Your task to perform on an android device: Open calendar and show me the third week of next month Image 0: 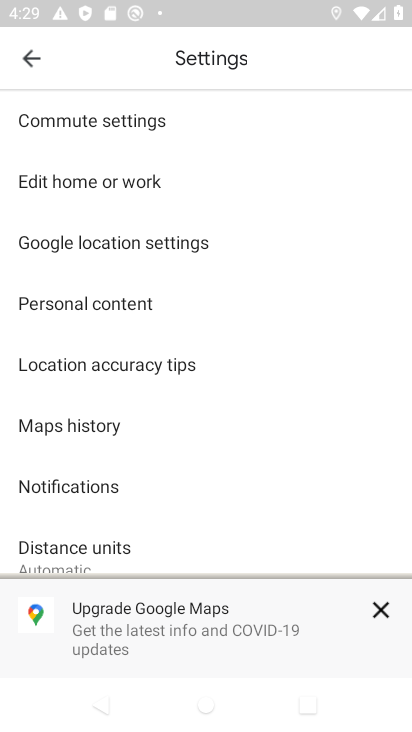
Step 0: press back button
Your task to perform on an android device: Open calendar and show me the third week of next month Image 1: 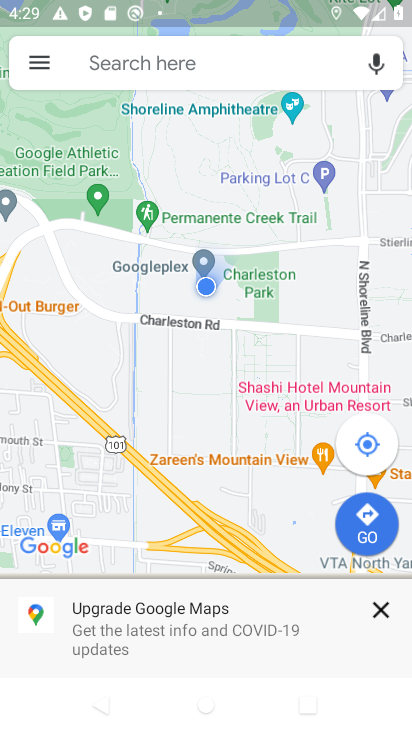
Step 1: press home button
Your task to perform on an android device: Open calendar and show me the third week of next month Image 2: 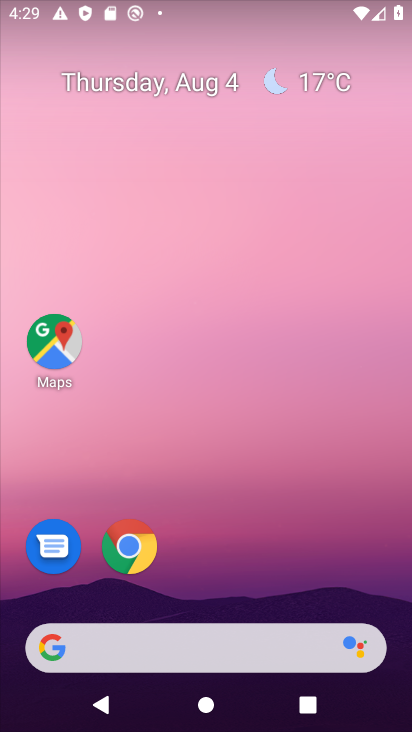
Step 2: drag from (196, 573) to (291, 45)
Your task to perform on an android device: Open calendar and show me the third week of next month Image 3: 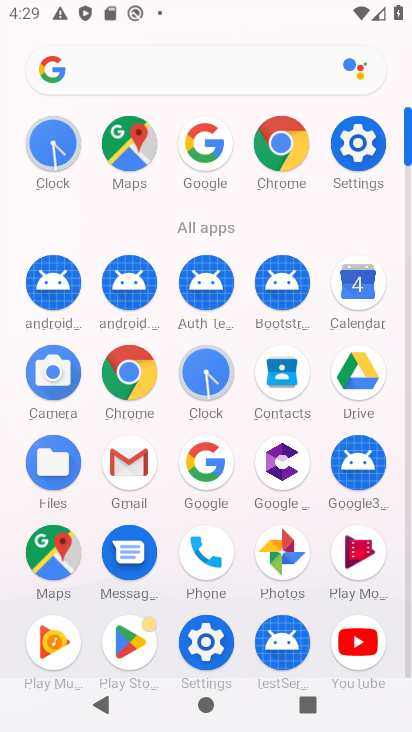
Step 3: click (367, 318)
Your task to perform on an android device: Open calendar and show me the third week of next month Image 4: 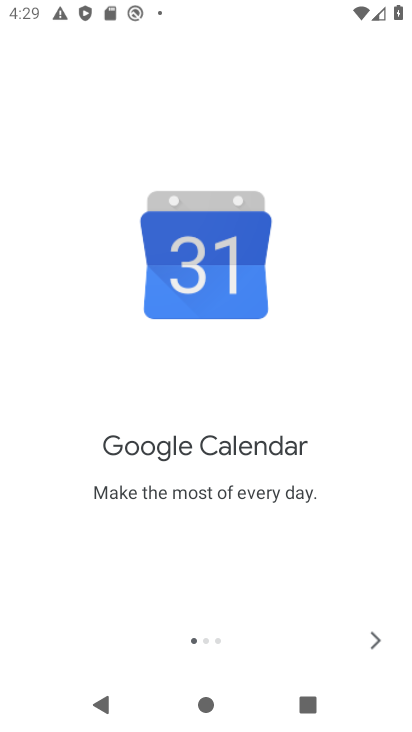
Step 4: click (362, 639)
Your task to perform on an android device: Open calendar and show me the third week of next month Image 5: 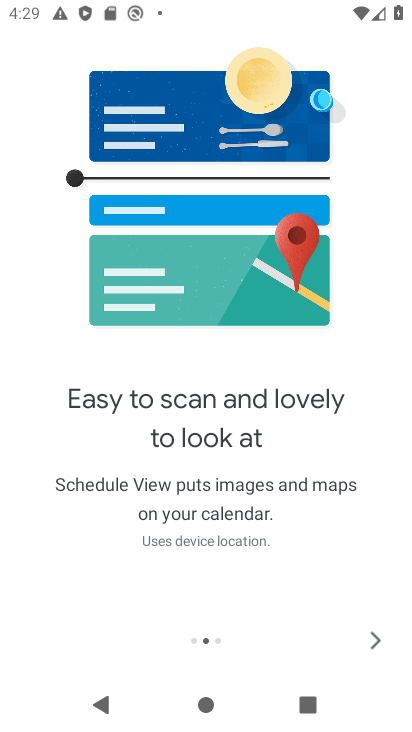
Step 5: click (362, 639)
Your task to perform on an android device: Open calendar and show me the third week of next month Image 6: 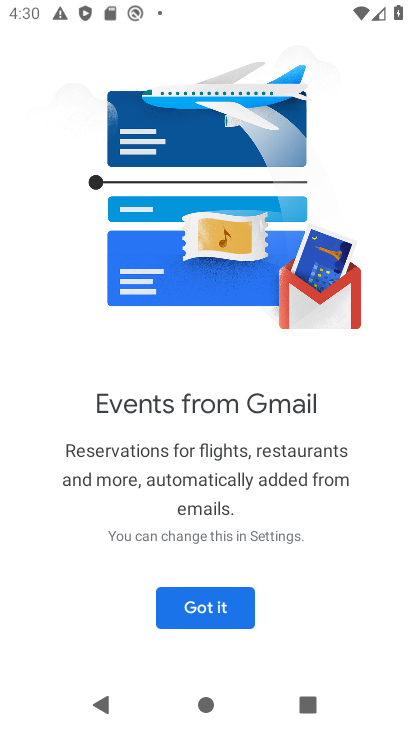
Step 6: click (362, 639)
Your task to perform on an android device: Open calendar and show me the third week of next month Image 7: 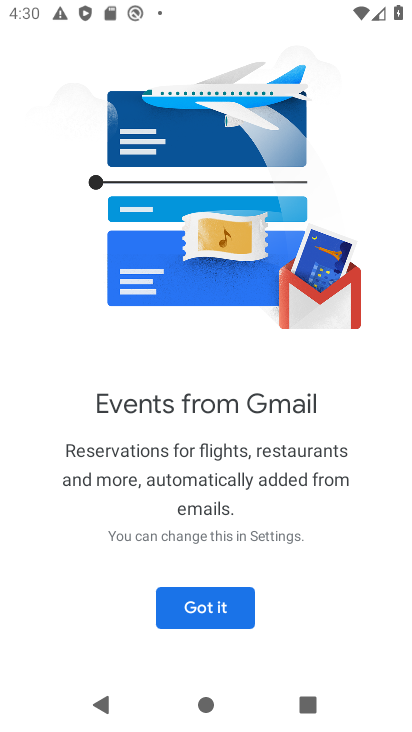
Step 7: click (206, 607)
Your task to perform on an android device: Open calendar and show me the third week of next month Image 8: 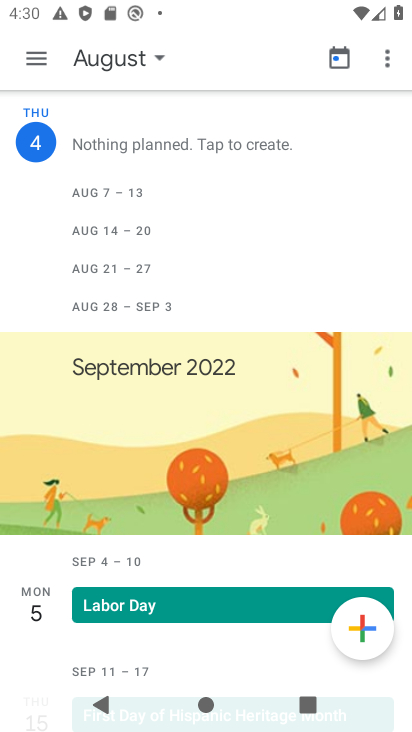
Step 8: click (36, 55)
Your task to perform on an android device: Open calendar and show me the third week of next month Image 9: 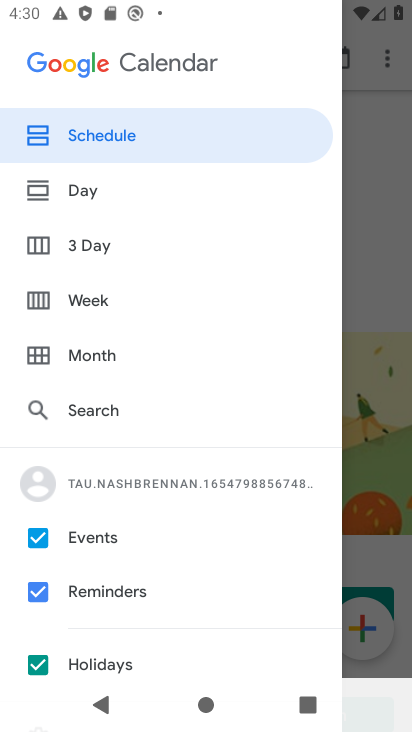
Step 9: click (84, 299)
Your task to perform on an android device: Open calendar and show me the third week of next month Image 10: 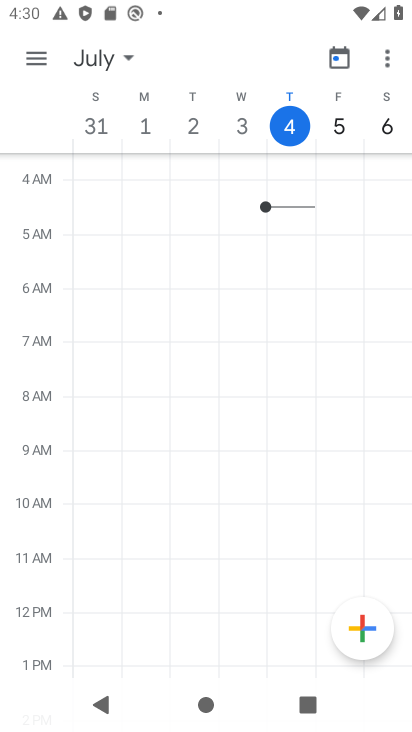
Step 10: click (105, 70)
Your task to perform on an android device: Open calendar and show me the third week of next month Image 11: 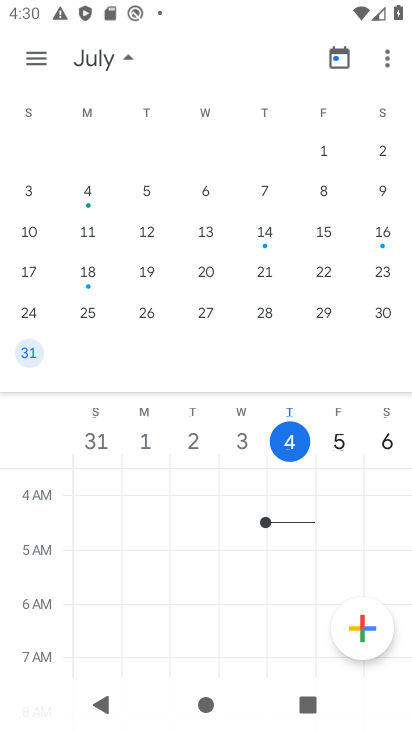
Step 11: drag from (260, 235) to (5, 253)
Your task to perform on an android device: Open calendar and show me the third week of next month Image 12: 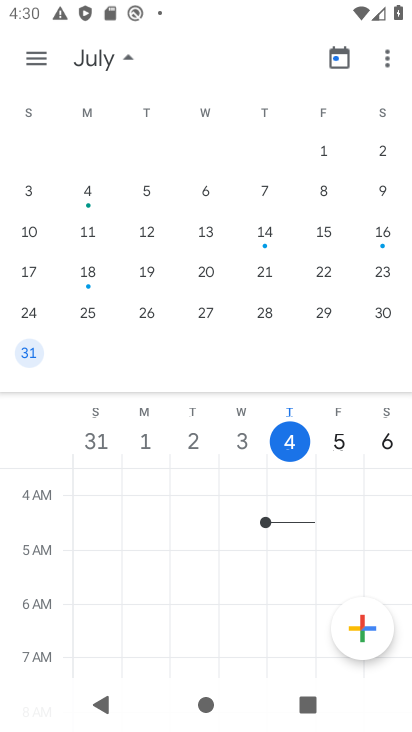
Step 12: drag from (237, 250) to (6, 252)
Your task to perform on an android device: Open calendar and show me the third week of next month Image 13: 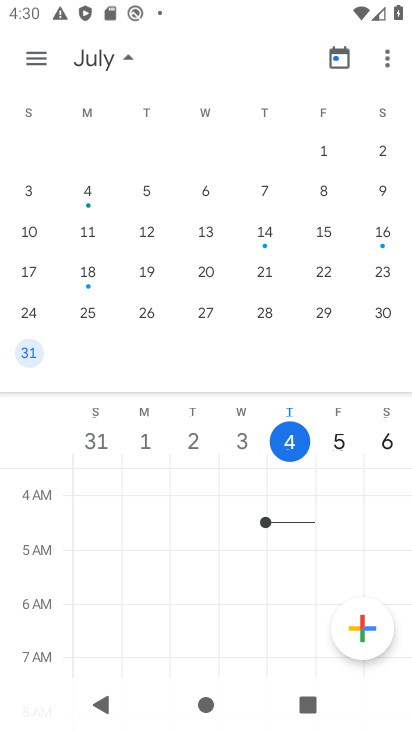
Step 13: drag from (290, 248) to (1, 265)
Your task to perform on an android device: Open calendar and show me the third week of next month Image 14: 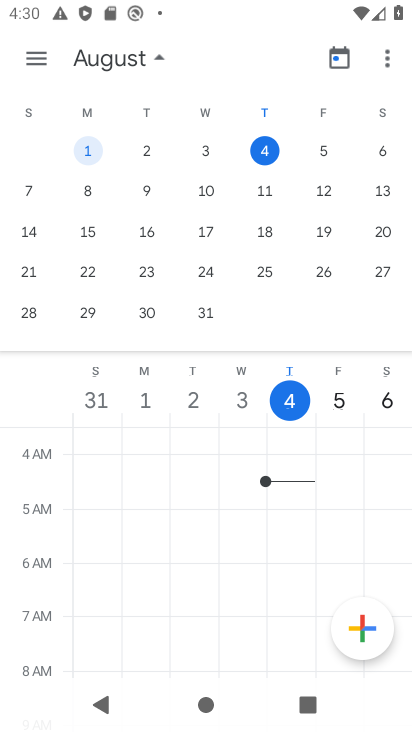
Step 14: drag from (270, 239) to (150, 224)
Your task to perform on an android device: Open calendar and show me the third week of next month Image 15: 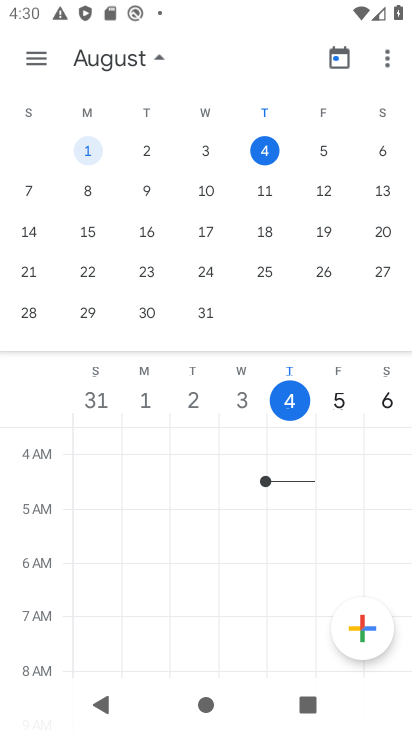
Step 15: drag from (305, 224) to (115, 219)
Your task to perform on an android device: Open calendar and show me the third week of next month Image 16: 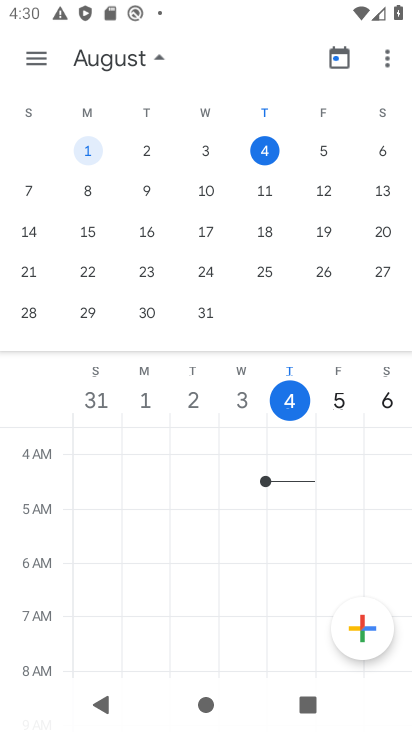
Step 16: drag from (254, 219) to (42, 220)
Your task to perform on an android device: Open calendar and show me the third week of next month Image 17: 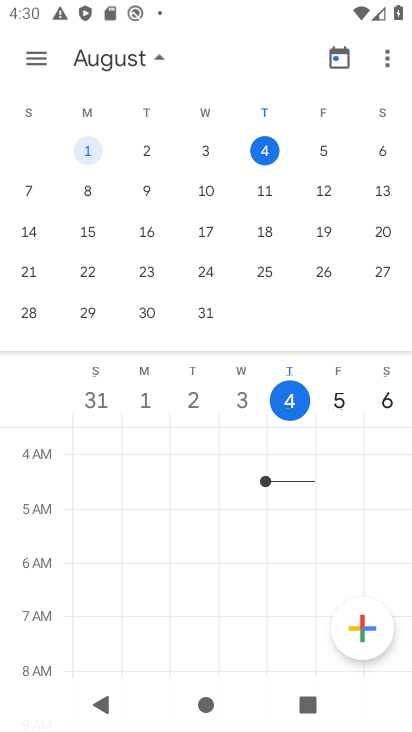
Step 17: drag from (296, 207) to (39, 216)
Your task to perform on an android device: Open calendar and show me the third week of next month Image 18: 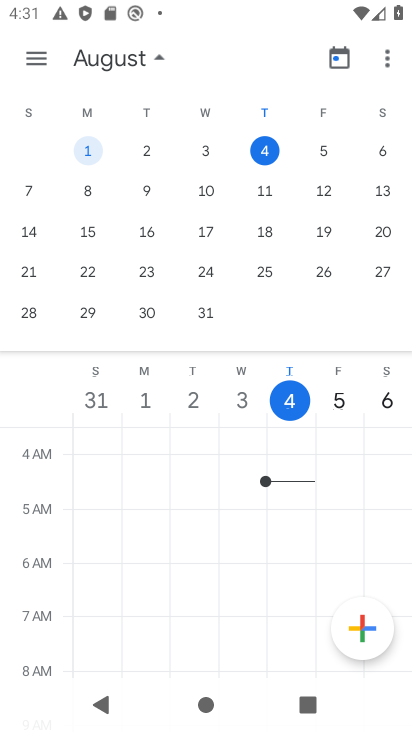
Step 18: drag from (357, 219) to (8, 226)
Your task to perform on an android device: Open calendar and show me the third week of next month Image 19: 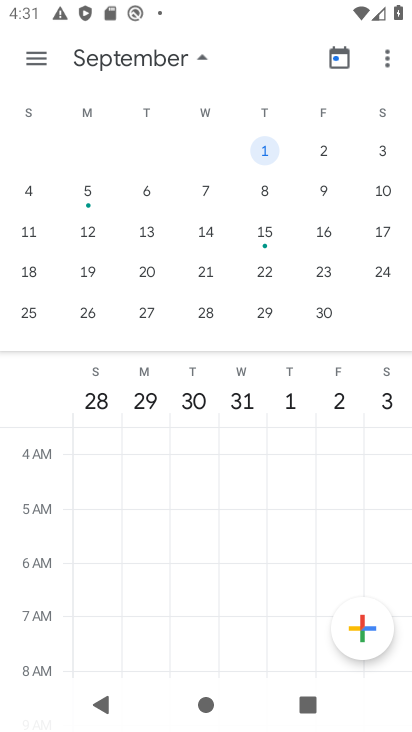
Step 19: click (28, 231)
Your task to perform on an android device: Open calendar and show me the third week of next month Image 20: 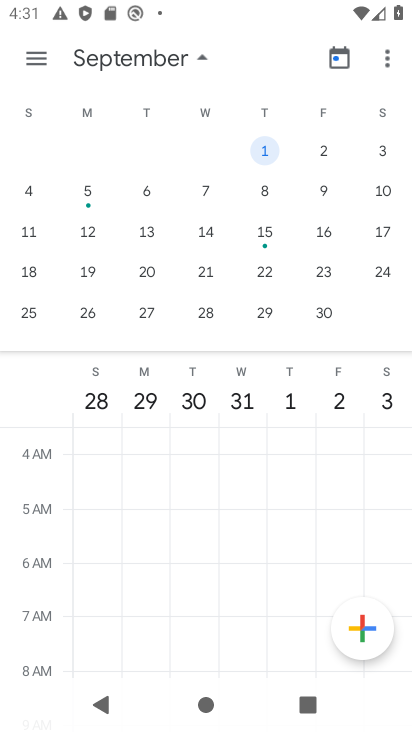
Step 20: click (28, 231)
Your task to perform on an android device: Open calendar and show me the third week of next month Image 21: 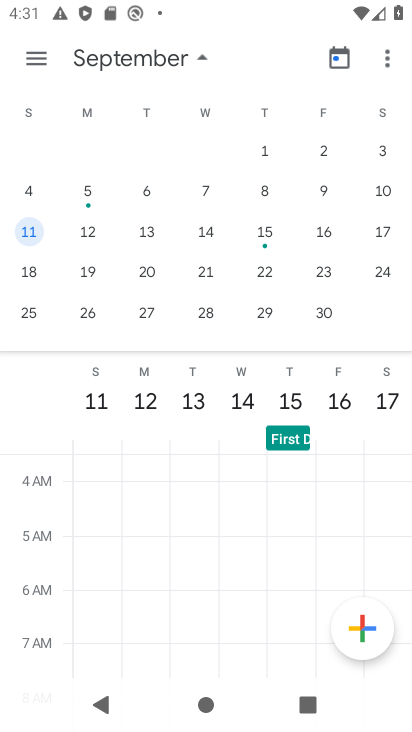
Step 21: task complete